Your task to perform on an android device: change the clock style Image 0: 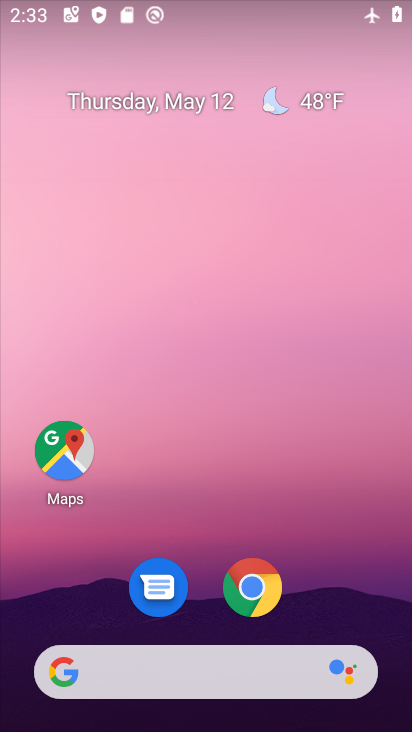
Step 0: drag from (201, 613) to (220, 348)
Your task to perform on an android device: change the clock style Image 1: 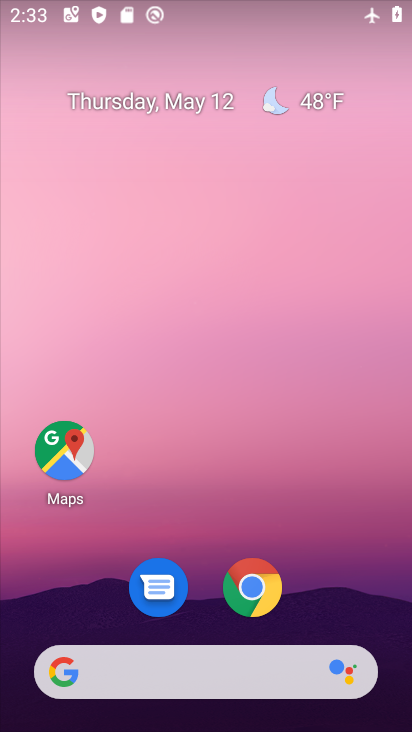
Step 1: drag from (184, 673) to (228, 360)
Your task to perform on an android device: change the clock style Image 2: 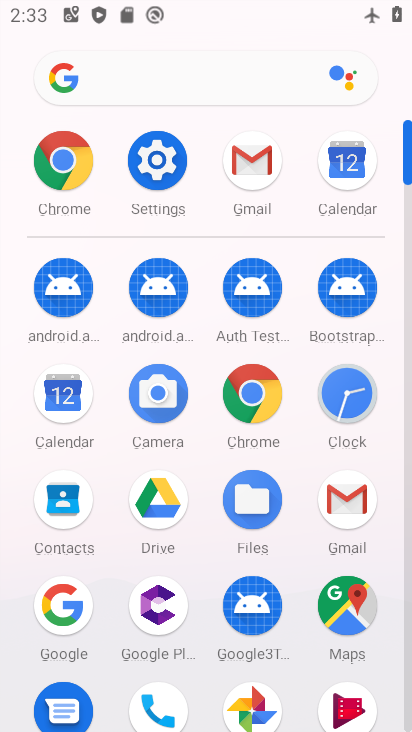
Step 2: click (351, 417)
Your task to perform on an android device: change the clock style Image 3: 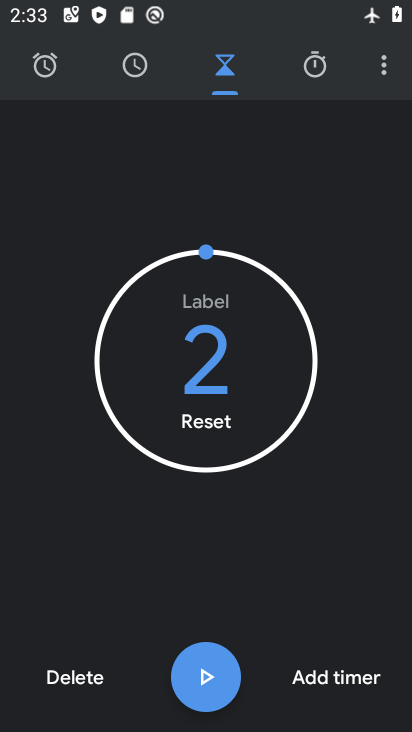
Step 3: click (398, 69)
Your task to perform on an android device: change the clock style Image 4: 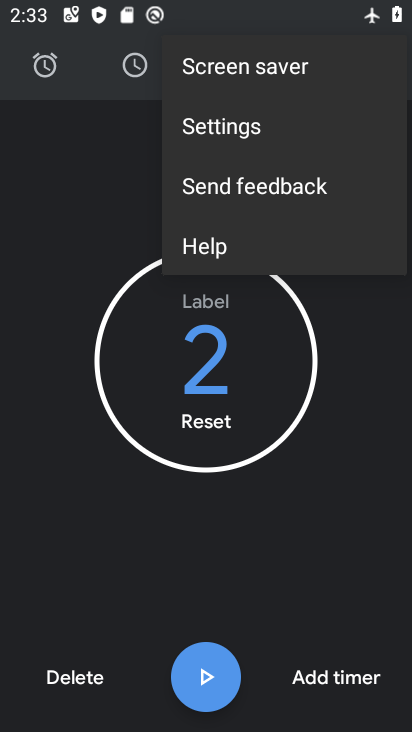
Step 4: click (273, 137)
Your task to perform on an android device: change the clock style Image 5: 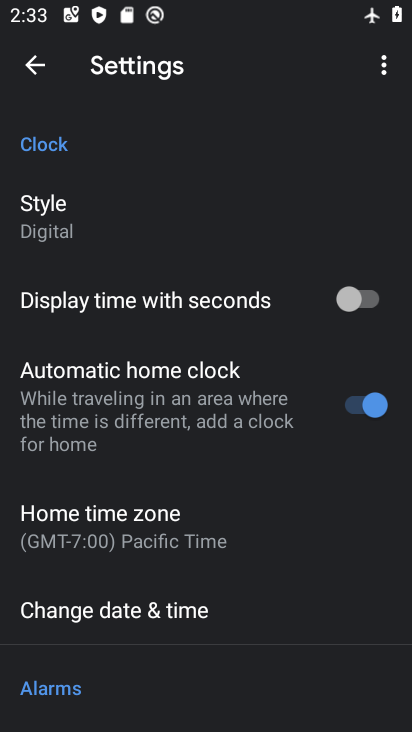
Step 5: click (117, 224)
Your task to perform on an android device: change the clock style Image 6: 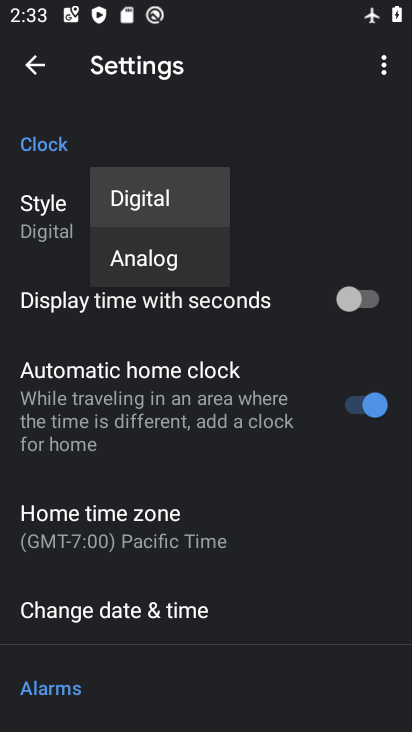
Step 6: click (130, 265)
Your task to perform on an android device: change the clock style Image 7: 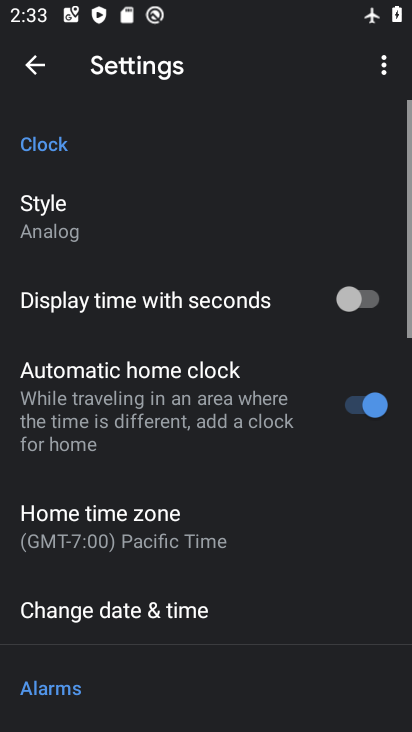
Step 7: task complete